Your task to perform on an android device: Open wifi settings Image 0: 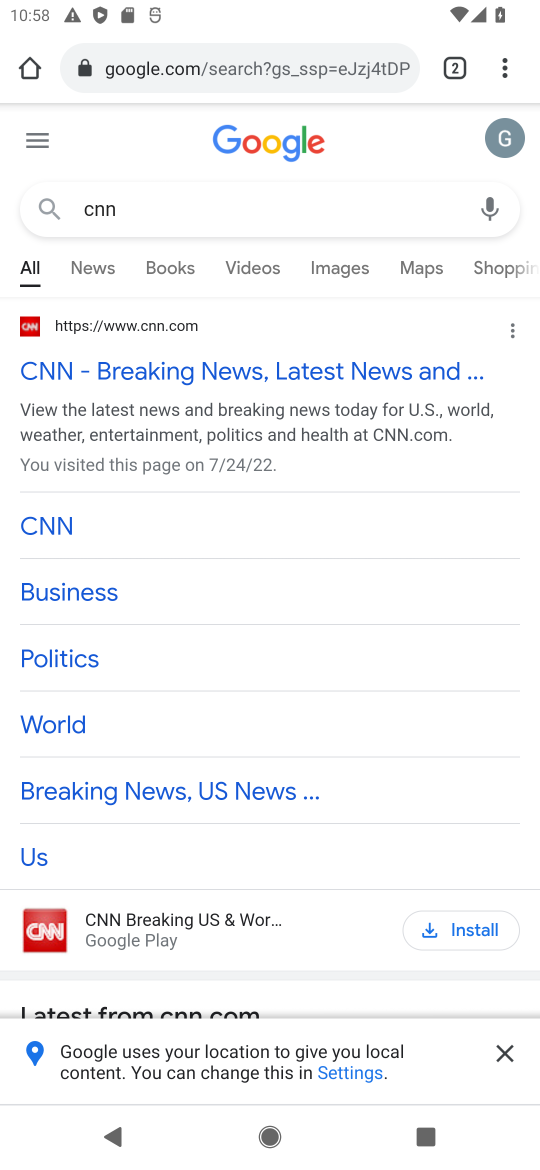
Step 0: press back button
Your task to perform on an android device: Open wifi settings Image 1: 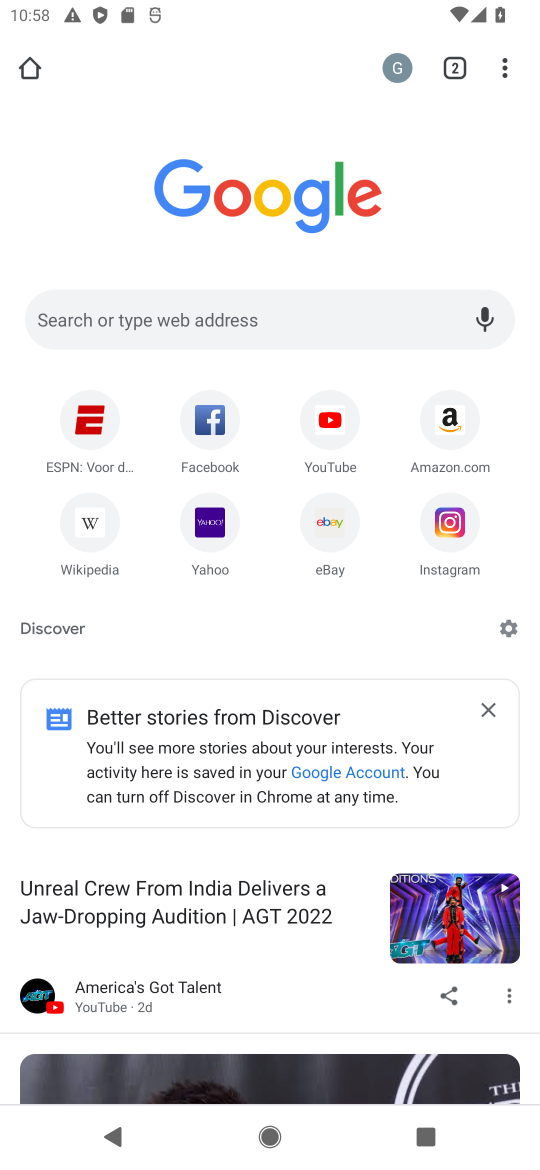
Step 1: press home button
Your task to perform on an android device: Open wifi settings Image 2: 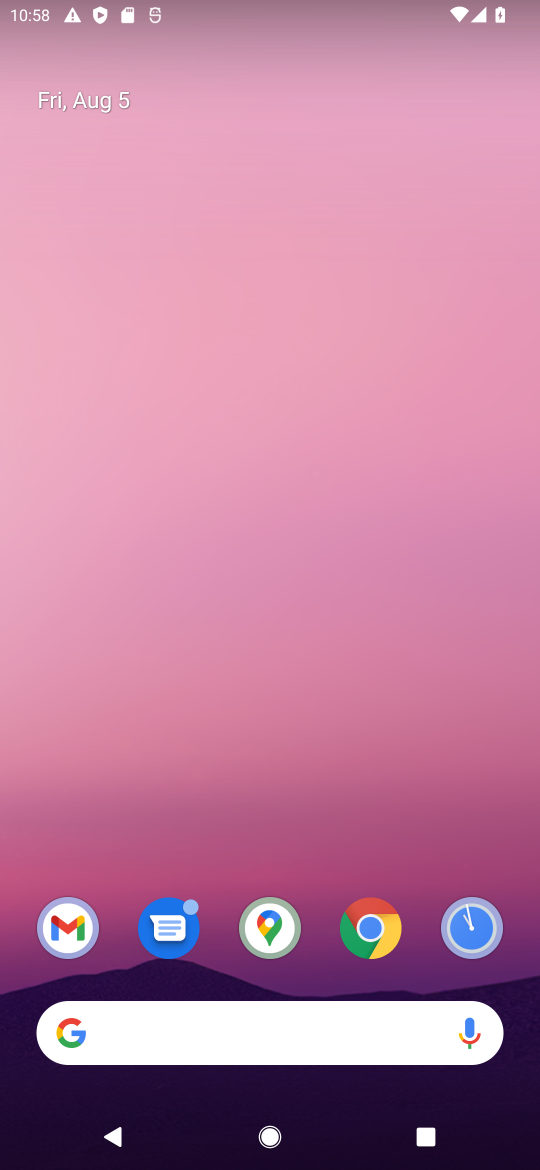
Step 2: drag from (280, 970) to (99, 16)
Your task to perform on an android device: Open wifi settings Image 3: 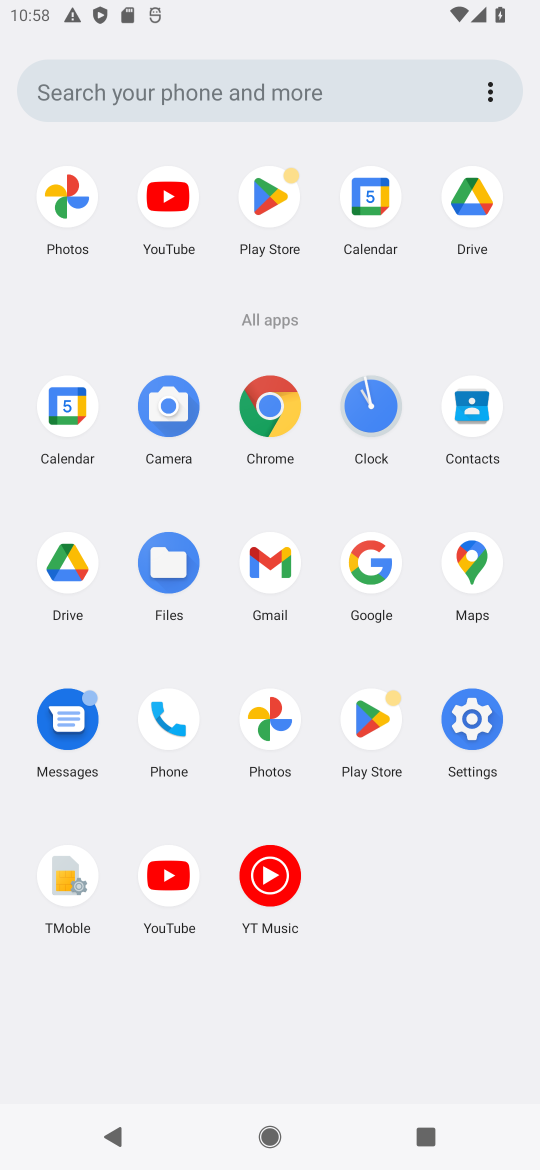
Step 3: click (474, 722)
Your task to perform on an android device: Open wifi settings Image 4: 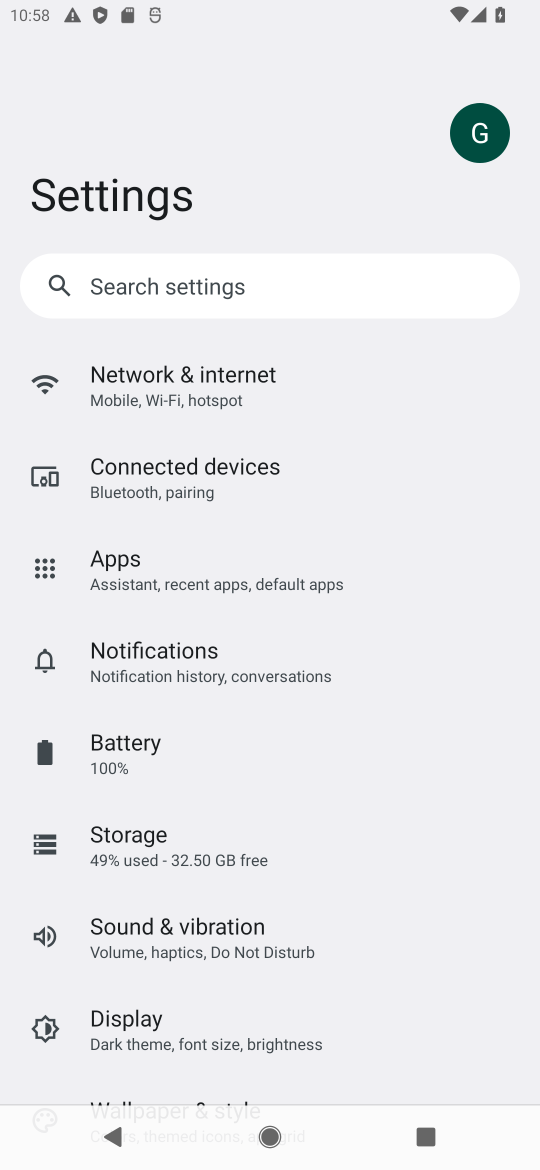
Step 4: click (285, 371)
Your task to perform on an android device: Open wifi settings Image 5: 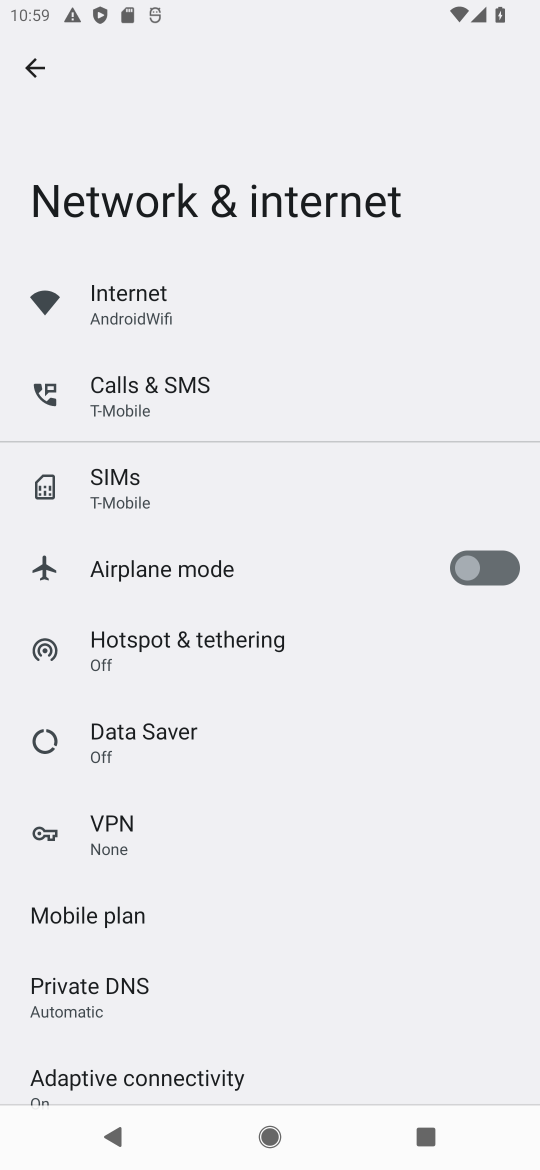
Step 5: click (114, 332)
Your task to perform on an android device: Open wifi settings Image 6: 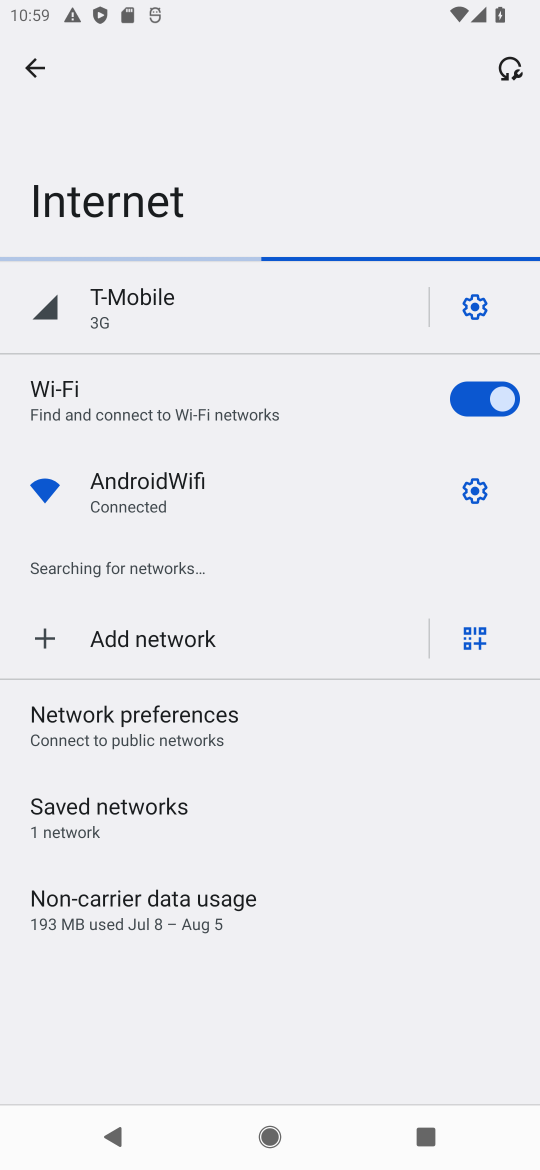
Step 6: click (155, 575)
Your task to perform on an android device: Open wifi settings Image 7: 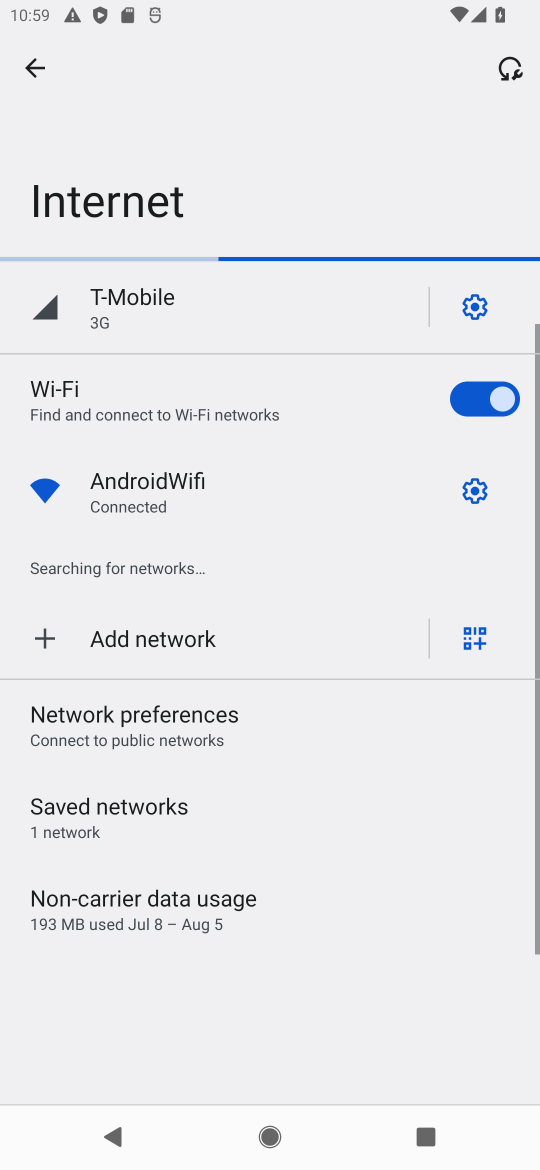
Step 7: task complete